Your task to perform on an android device: Open Google Image 0: 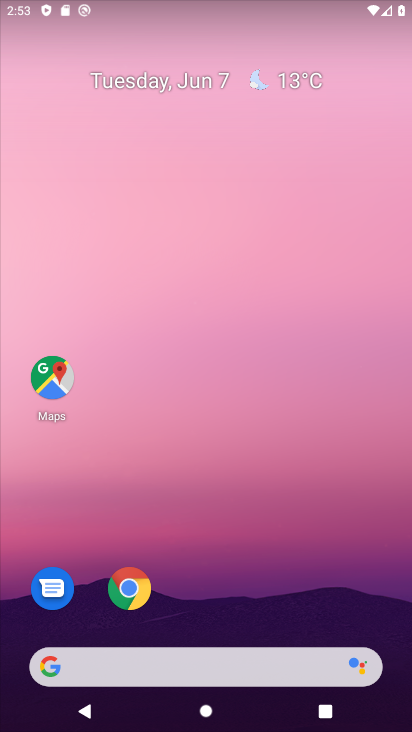
Step 0: drag from (305, 543) to (350, 687)
Your task to perform on an android device: Open Google Image 1: 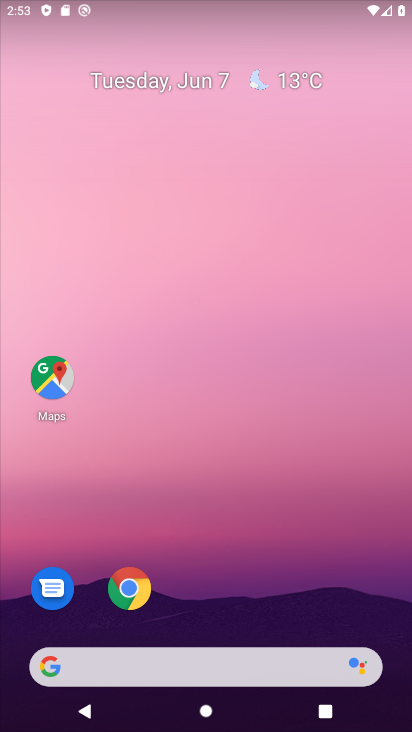
Step 1: drag from (283, 569) to (300, 126)
Your task to perform on an android device: Open Google Image 2: 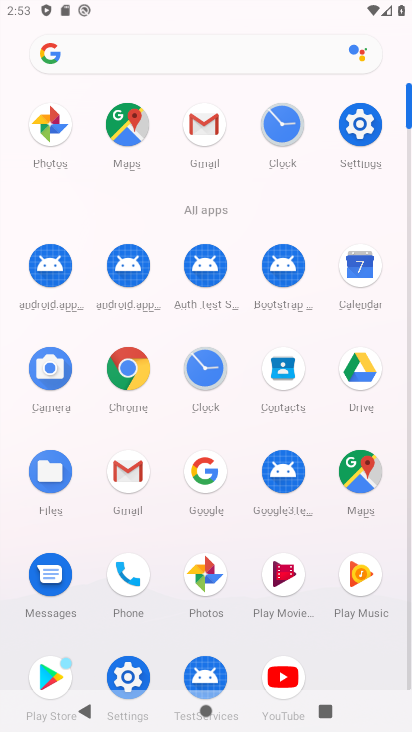
Step 2: drag from (159, 541) to (152, 444)
Your task to perform on an android device: Open Google Image 3: 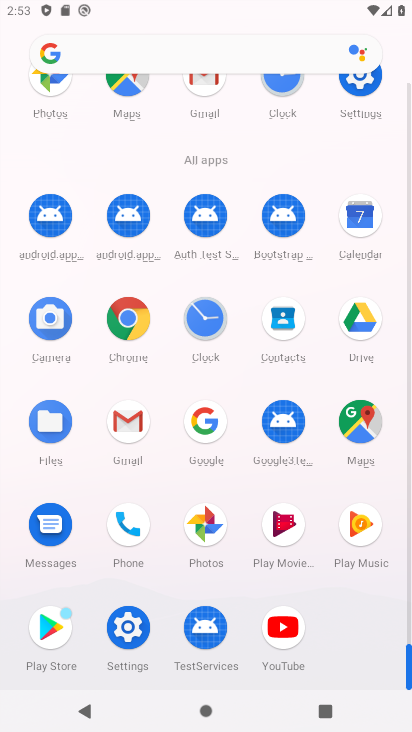
Step 3: click (206, 420)
Your task to perform on an android device: Open Google Image 4: 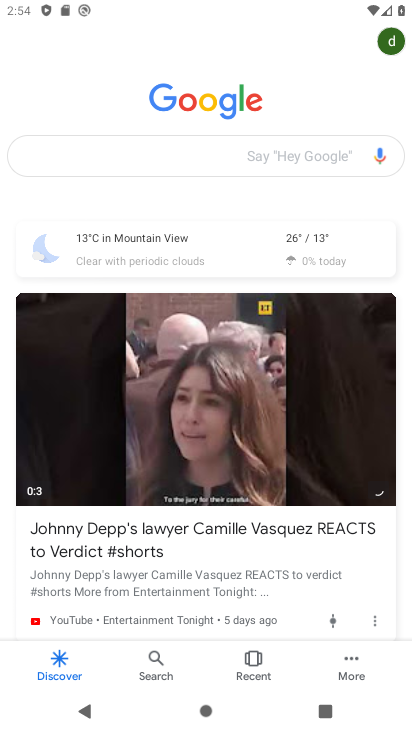
Step 4: task complete